Your task to perform on an android device: turn on data saver in the chrome app Image 0: 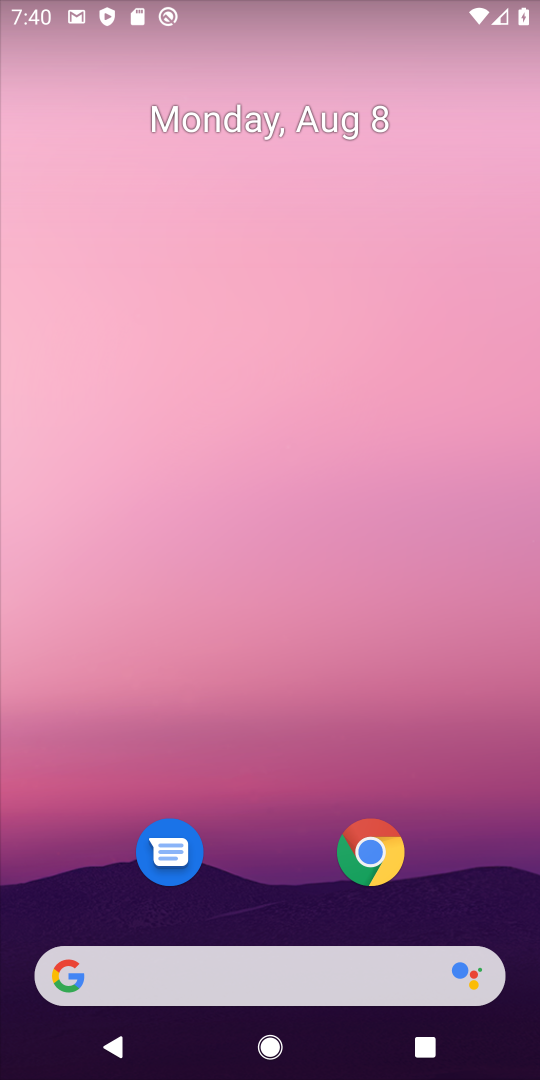
Step 0: drag from (277, 877) to (348, 399)
Your task to perform on an android device: turn on data saver in the chrome app Image 1: 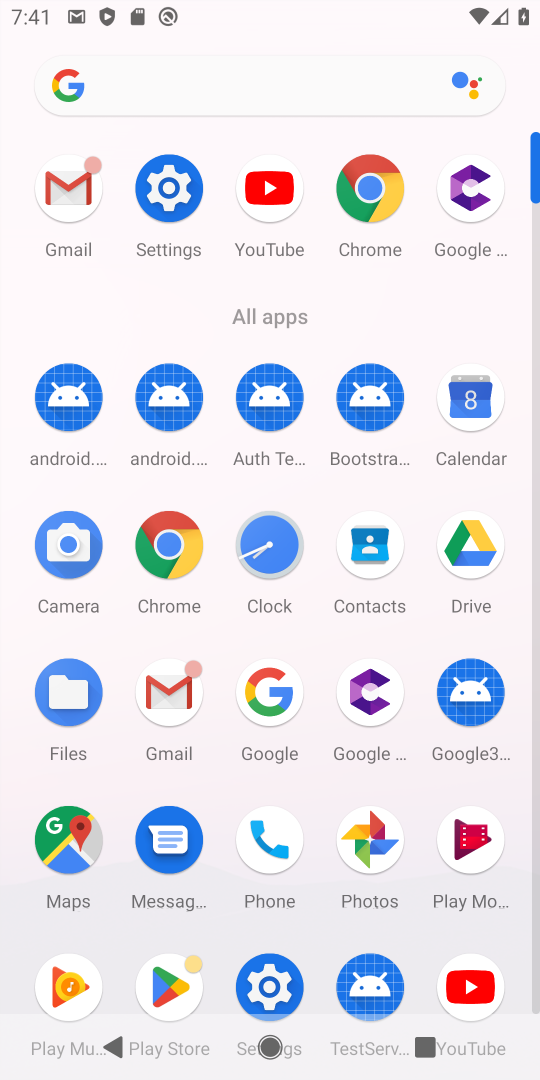
Step 1: click (366, 189)
Your task to perform on an android device: turn on data saver in the chrome app Image 2: 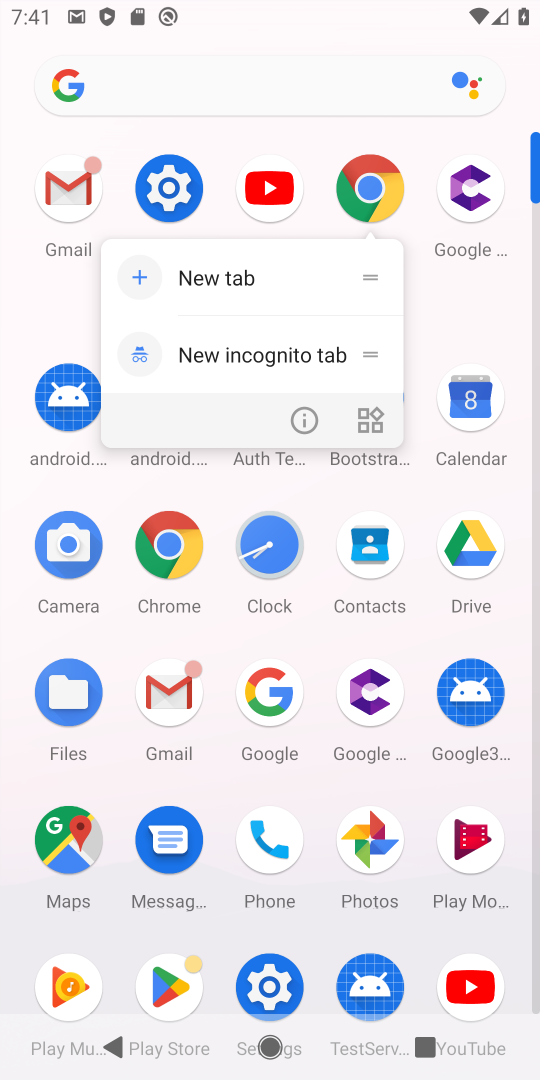
Step 2: click (176, 536)
Your task to perform on an android device: turn on data saver in the chrome app Image 3: 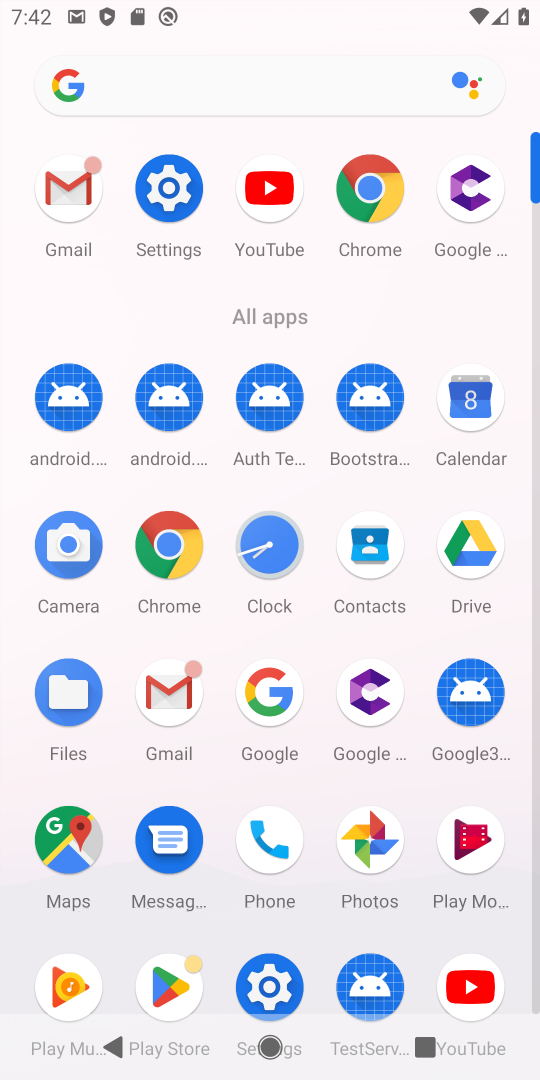
Step 3: click (197, 549)
Your task to perform on an android device: turn on data saver in the chrome app Image 4: 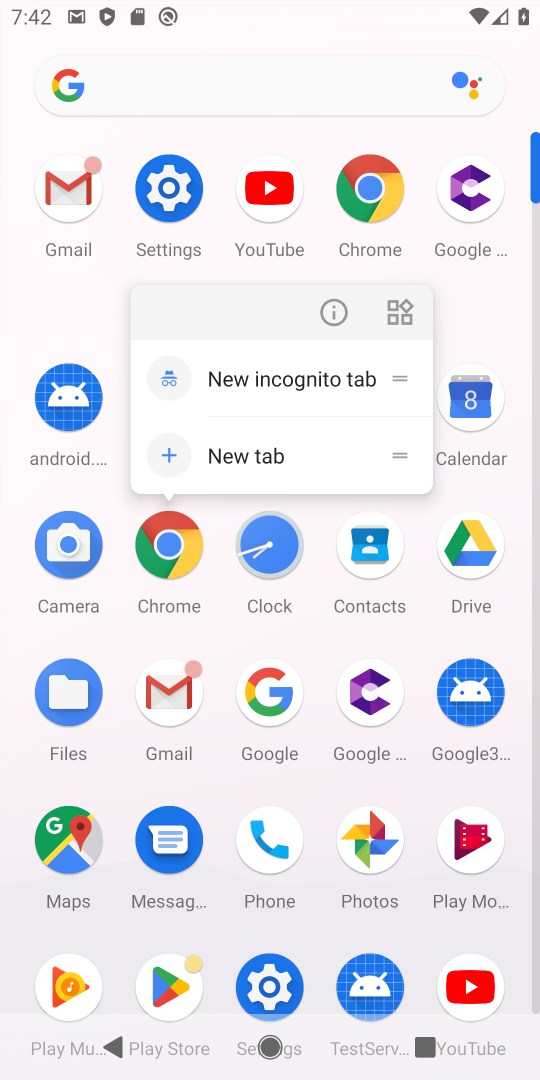
Step 4: click (178, 544)
Your task to perform on an android device: turn on data saver in the chrome app Image 5: 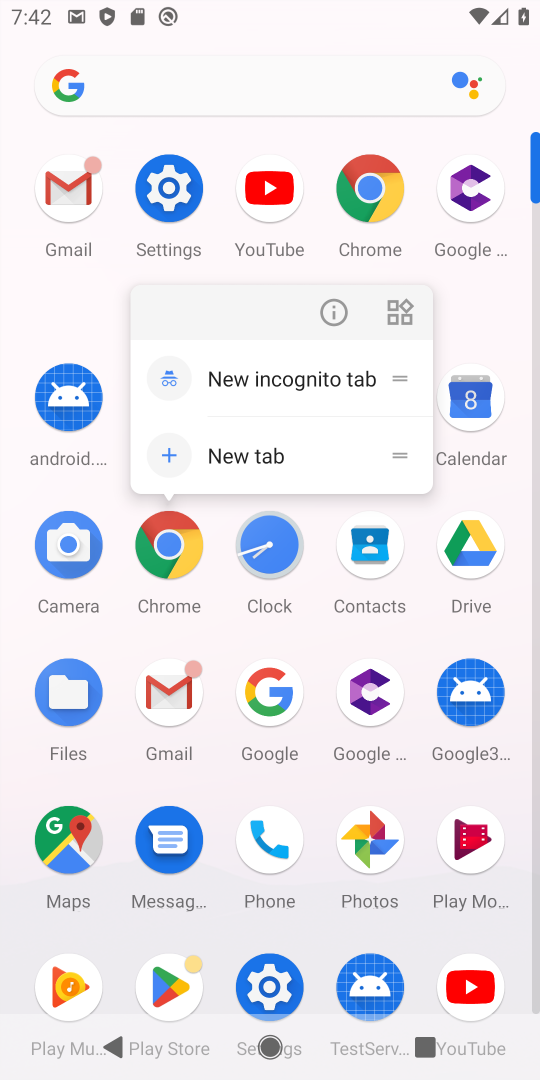
Step 5: click (178, 544)
Your task to perform on an android device: turn on data saver in the chrome app Image 6: 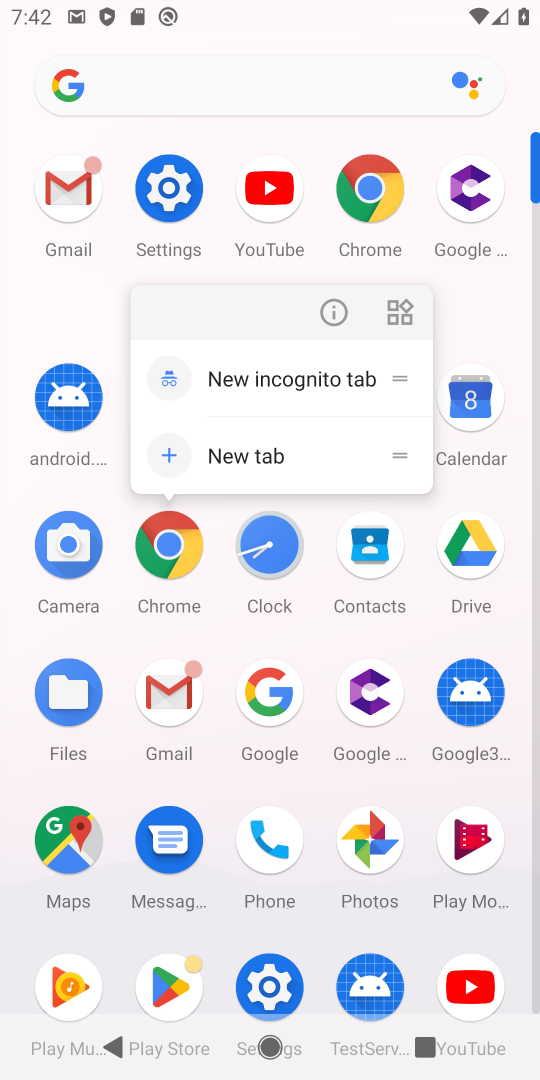
Step 6: click (145, 556)
Your task to perform on an android device: turn on data saver in the chrome app Image 7: 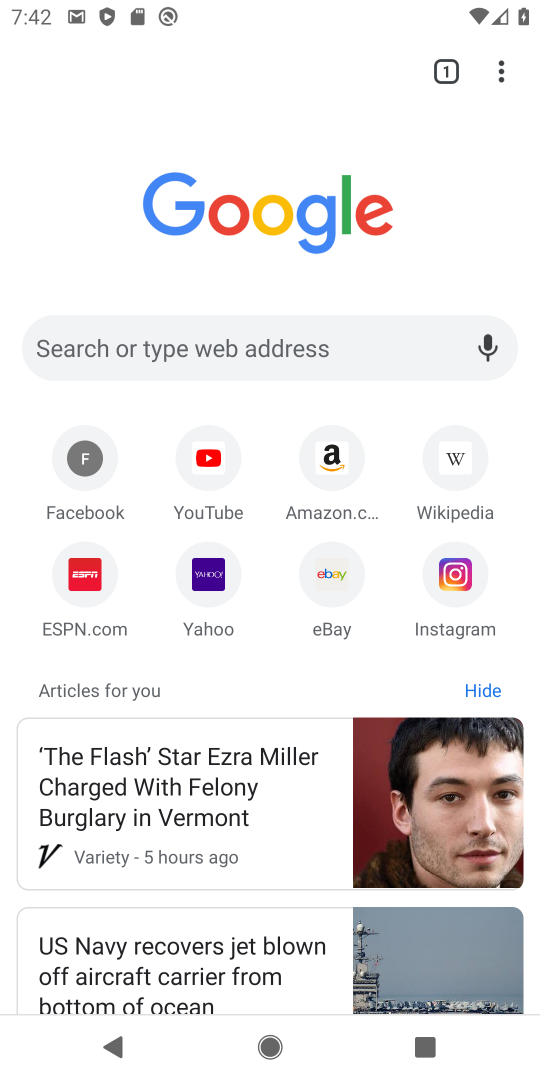
Step 7: click (505, 74)
Your task to perform on an android device: turn on data saver in the chrome app Image 8: 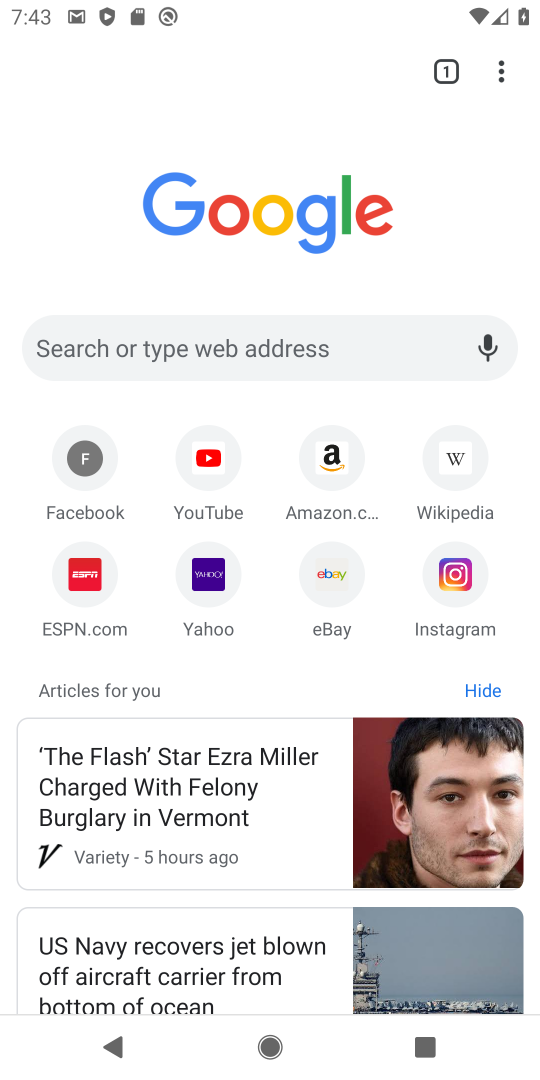
Step 8: click (499, 66)
Your task to perform on an android device: turn on data saver in the chrome app Image 9: 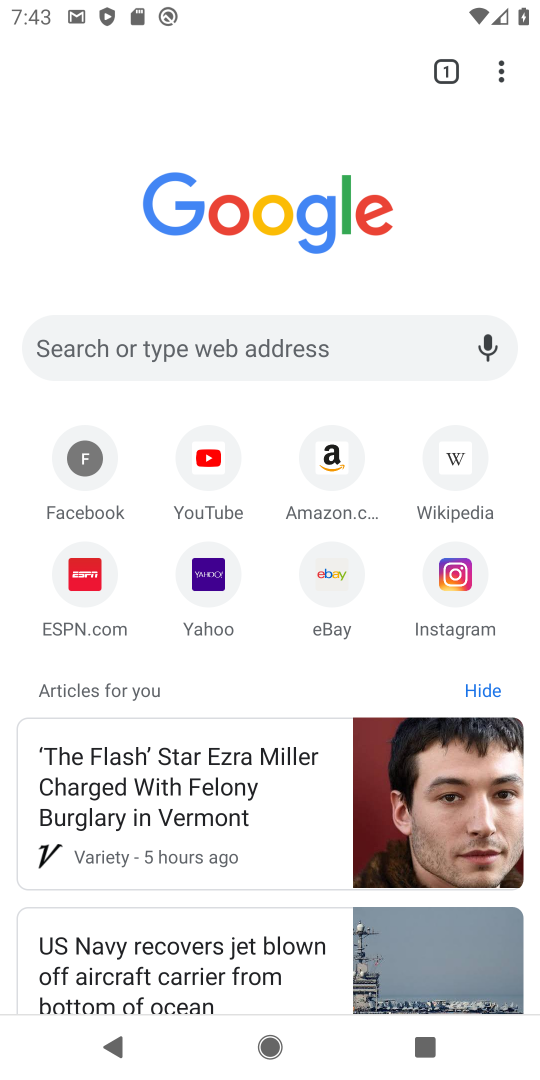
Step 9: click (490, 79)
Your task to perform on an android device: turn on data saver in the chrome app Image 10: 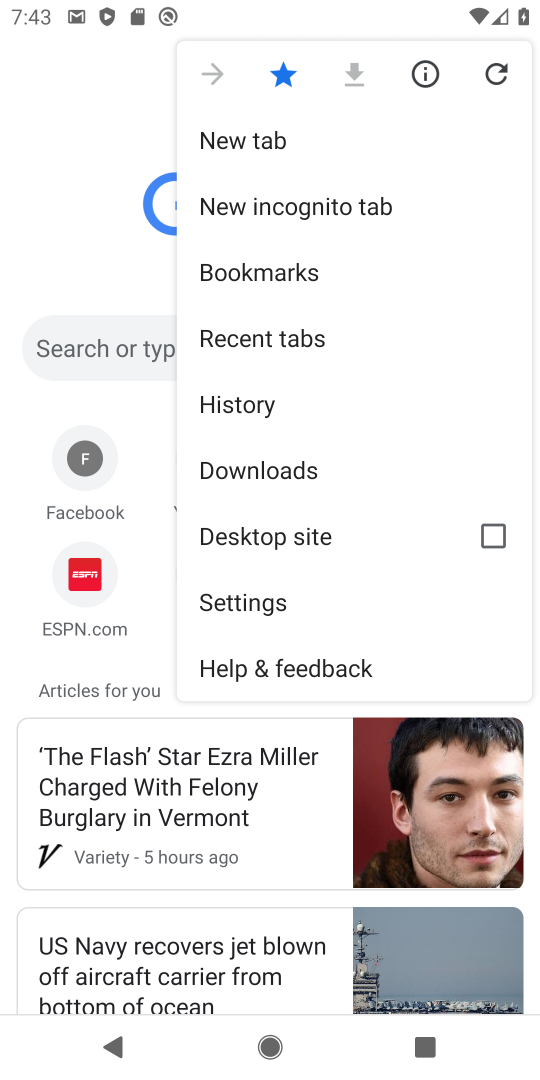
Step 10: click (281, 612)
Your task to perform on an android device: turn on data saver in the chrome app Image 11: 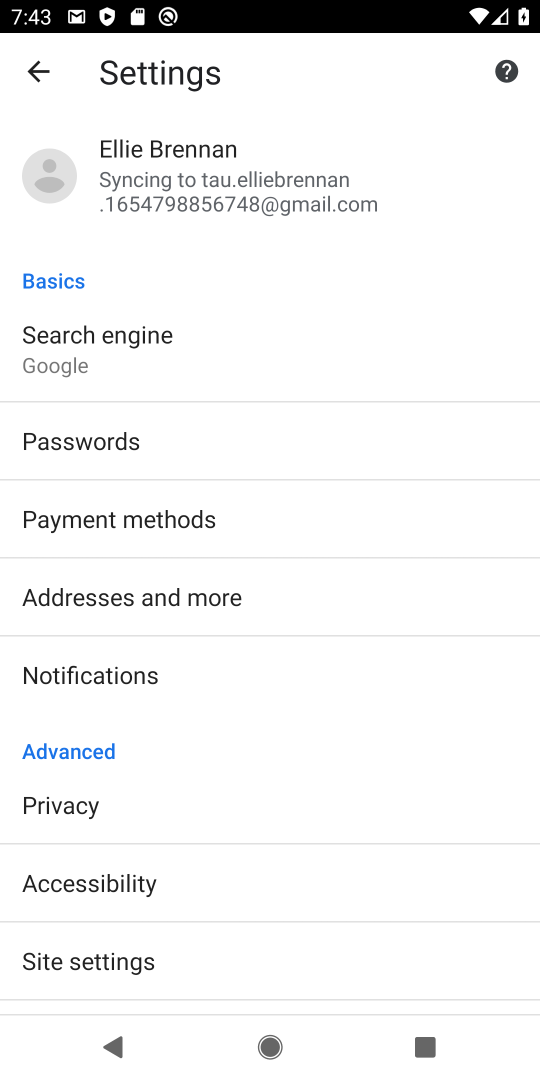
Step 11: drag from (160, 969) to (278, 531)
Your task to perform on an android device: turn on data saver in the chrome app Image 12: 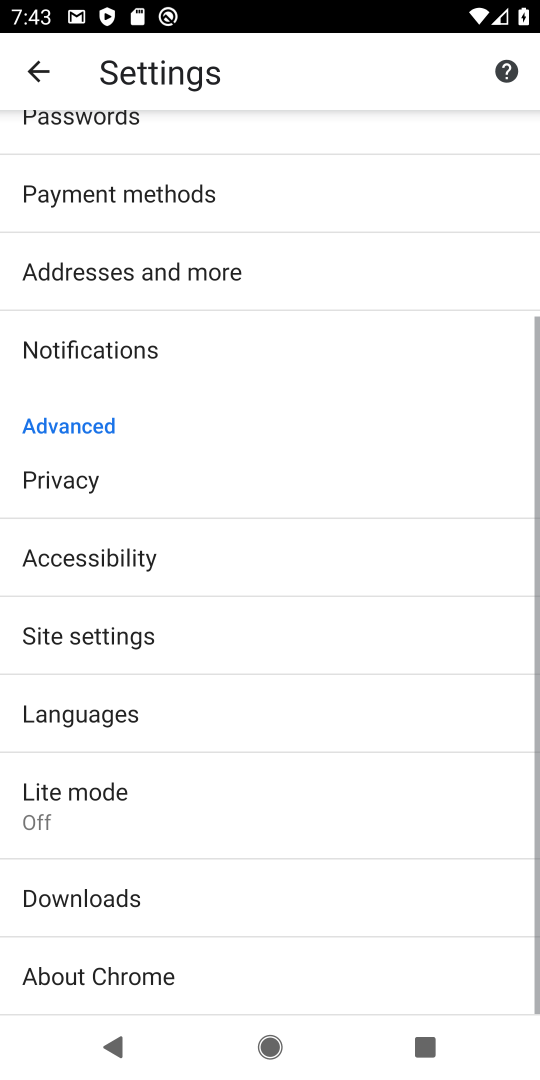
Step 12: click (88, 815)
Your task to perform on an android device: turn on data saver in the chrome app Image 13: 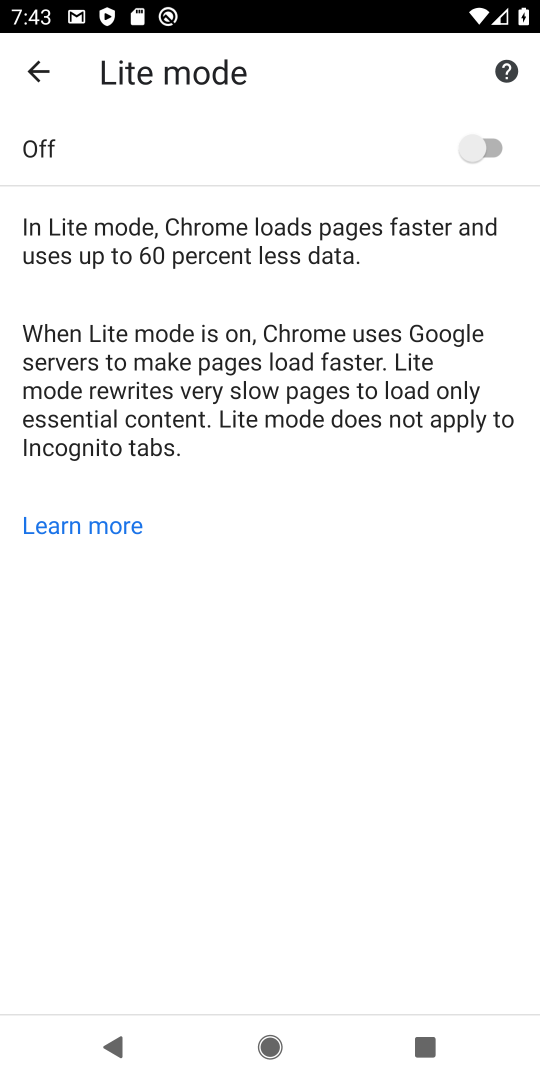
Step 13: click (495, 148)
Your task to perform on an android device: turn on data saver in the chrome app Image 14: 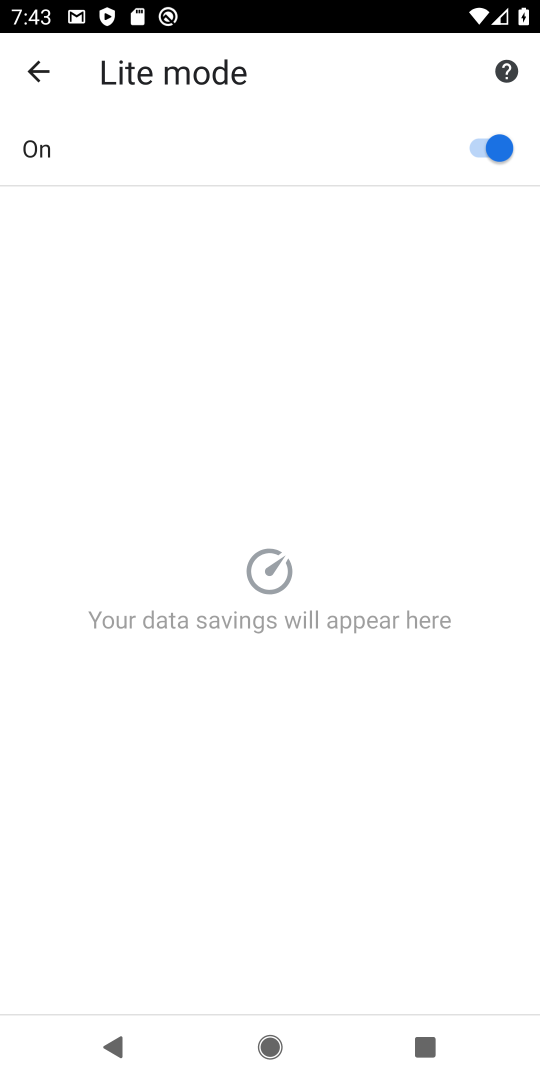
Step 14: task complete